Your task to perform on an android device: Go to accessibility settings Image 0: 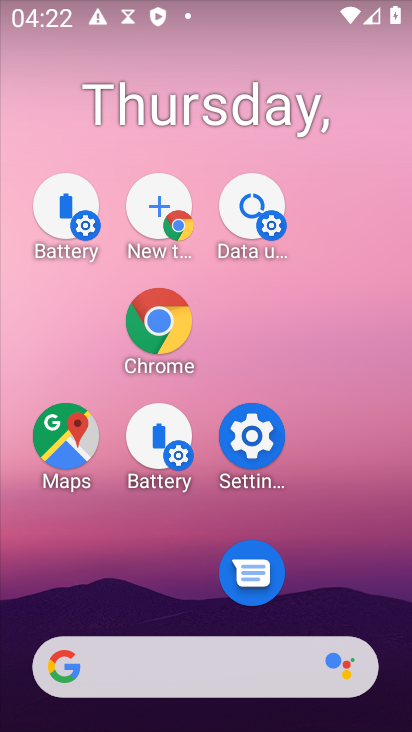
Step 0: drag from (236, 654) to (178, 212)
Your task to perform on an android device: Go to accessibility settings Image 1: 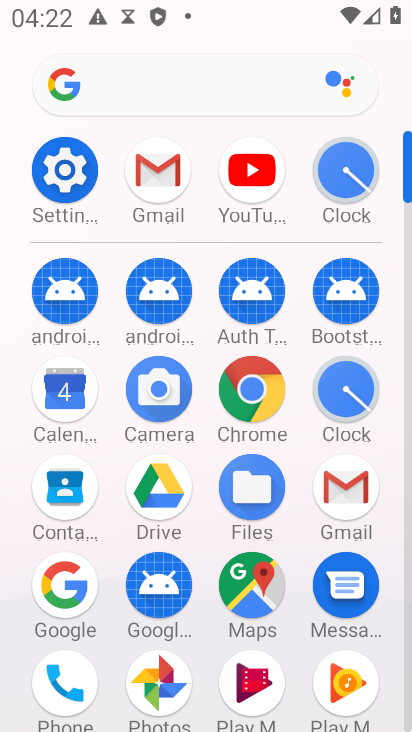
Step 1: click (59, 168)
Your task to perform on an android device: Go to accessibility settings Image 2: 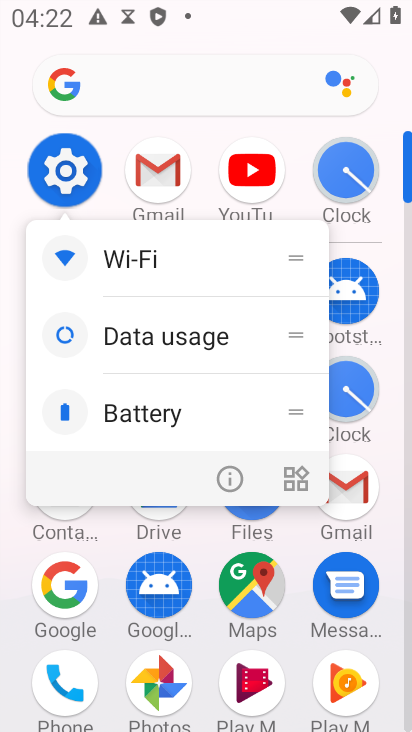
Step 2: click (60, 173)
Your task to perform on an android device: Go to accessibility settings Image 3: 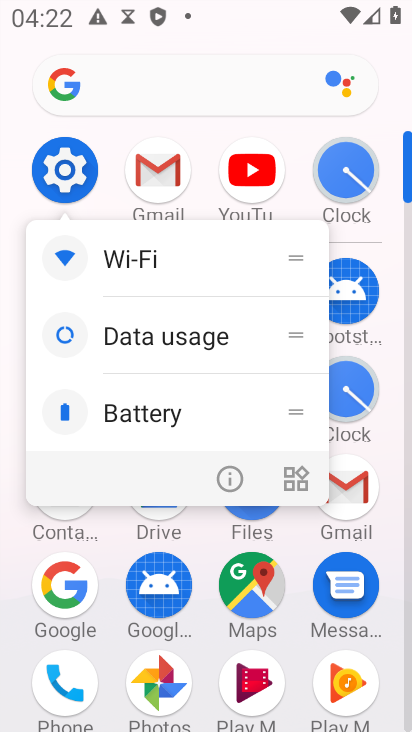
Step 3: click (166, 415)
Your task to perform on an android device: Go to accessibility settings Image 4: 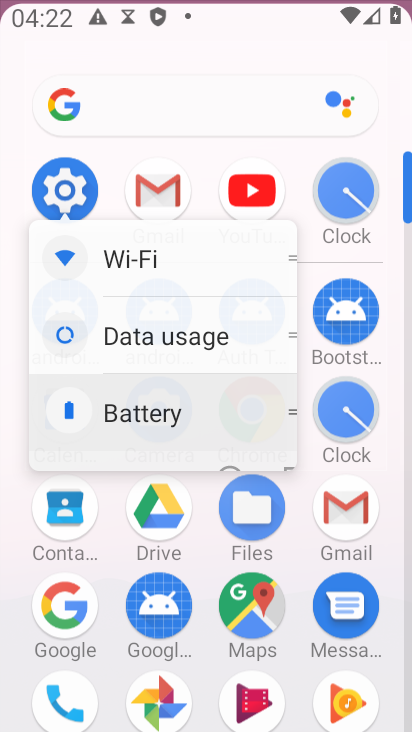
Step 4: click (166, 415)
Your task to perform on an android device: Go to accessibility settings Image 5: 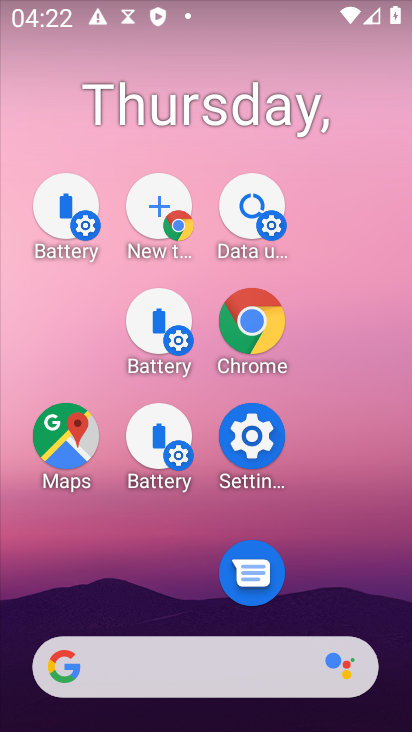
Step 5: drag from (304, 622) to (179, 37)
Your task to perform on an android device: Go to accessibility settings Image 6: 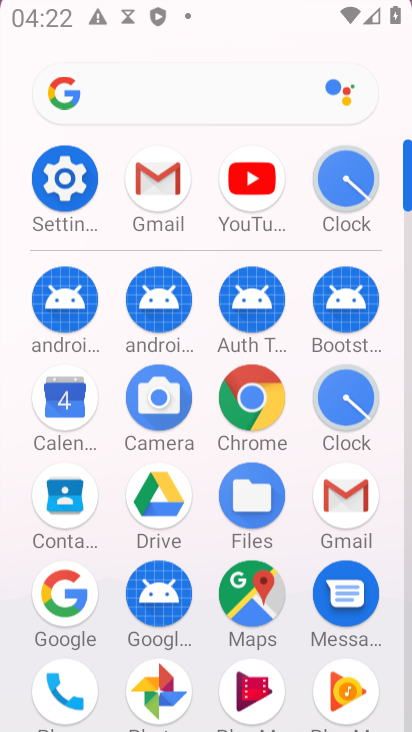
Step 6: drag from (303, 449) to (236, 15)
Your task to perform on an android device: Go to accessibility settings Image 7: 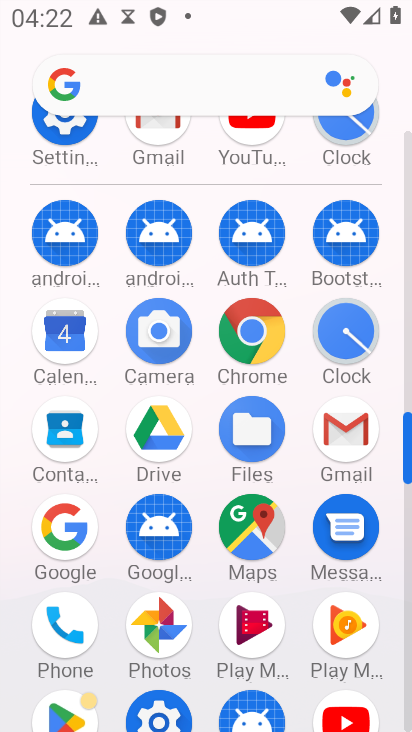
Step 7: click (156, 710)
Your task to perform on an android device: Go to accessibility settings Image 8: 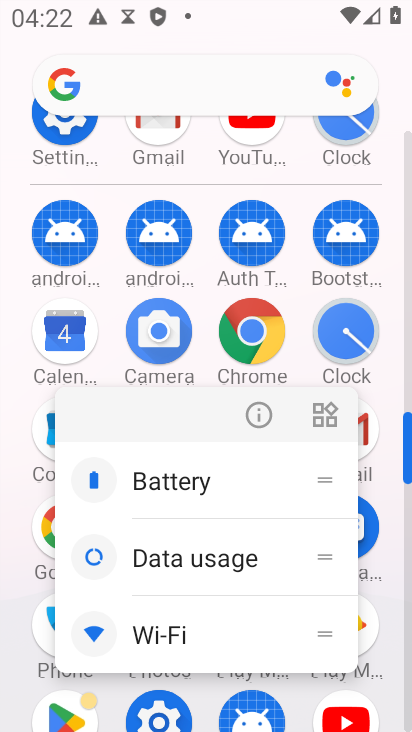
Step 8: click (155, 718)
Your task to perform on an android device: Go to accessibility settings Image 9: 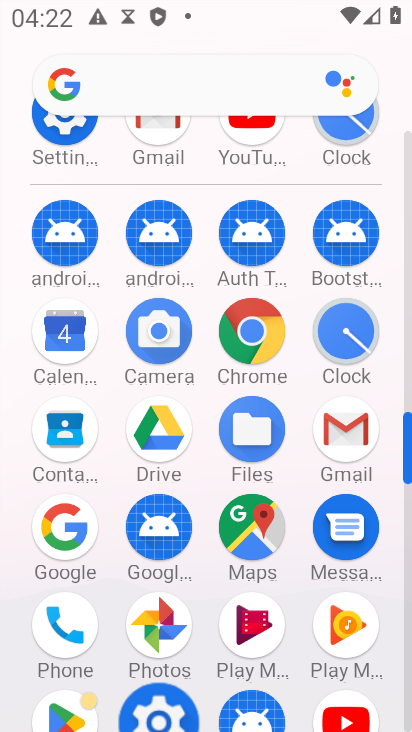
Step 9: click (159, 718)
Your task to perform on an android device: Go to accessibility settings Image 10: 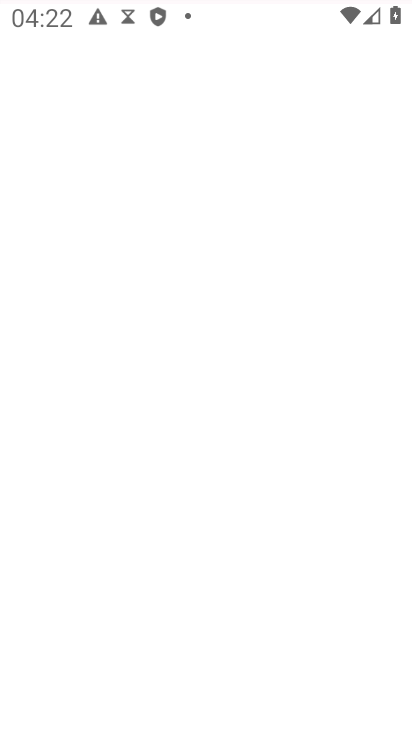
Step 10: click (164, 713)
Your task to perform on an android device: Go to accessibility settings Image 11: 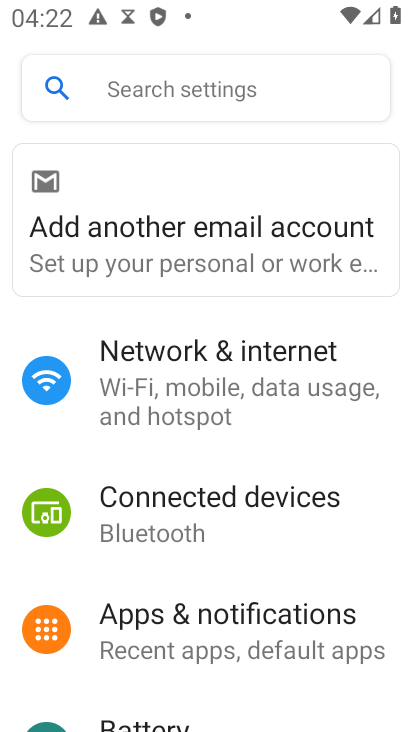
Step 11: drag from (241, 599) to (177, 233)
Your task to perform on an android device: Go to accessibility settings Image 12: 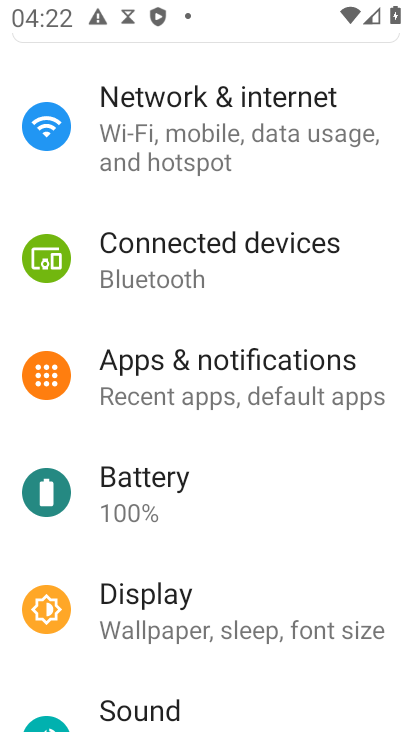
Step 12: drag from (225, 504) to (186, 268)
Your task to perform on an android device: Go to accessibility settings Image 13: 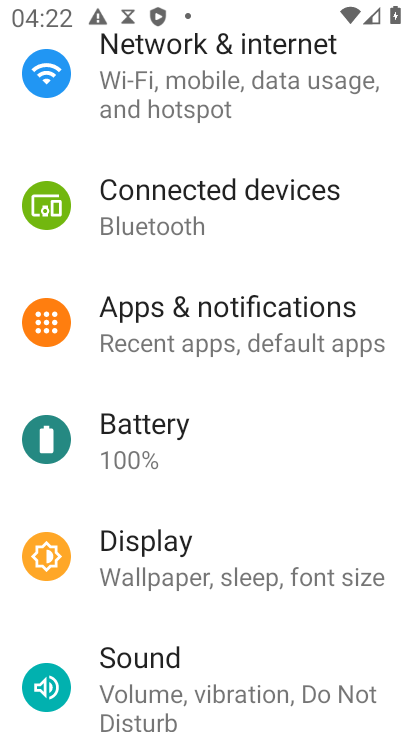
Step 13: drag from (245, 485) to (215, 224)
Your task to perform on an android device: Go to accessibility settings Image 14: 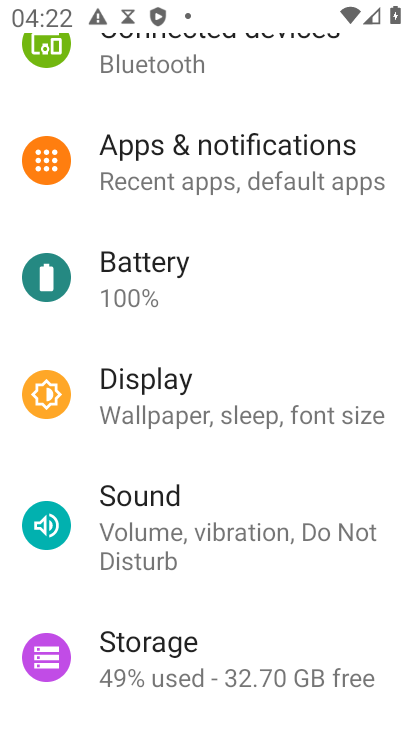
Step 14: drag from (241, 419) to (251, 251)
Your task to perform on an android device: Go to accessibility settings Image 15: 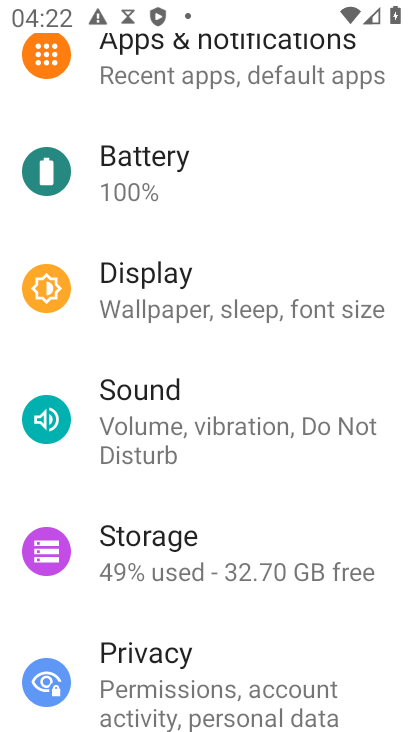
Step 15: drag from (233, 480) to (233, 236)
Your task to perform on an android device: Go to accessibility settings Image 16: 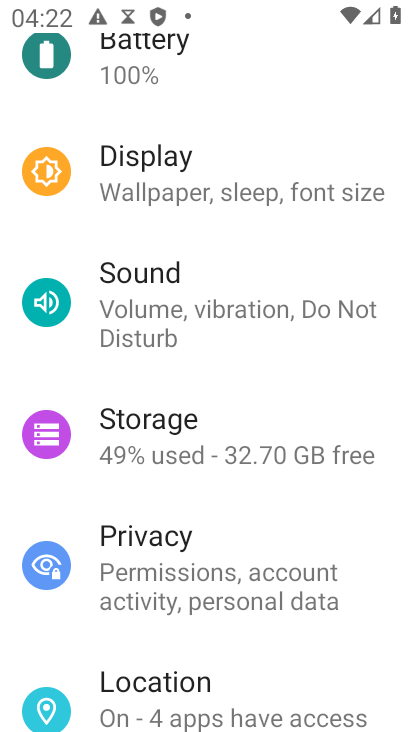
Step 16: drag from (250, 462) to (206, 155)
Your task to perform on an android device: Go to accessibility settings Image 17: 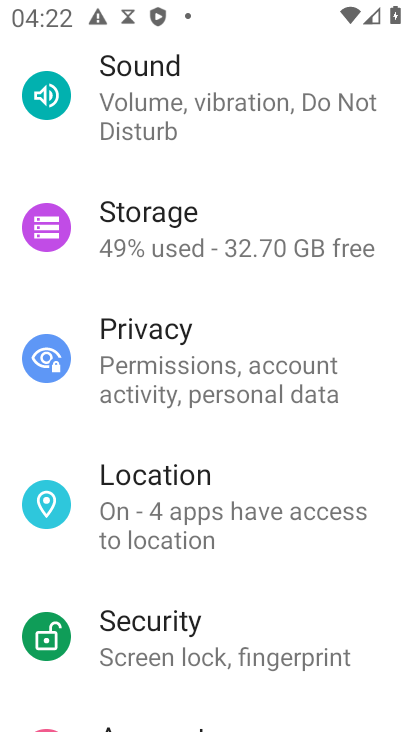
Step 17: drag from (248, 451) to (246, 217)
Your task to perform on an android device: Go to accessibility settings Image 18: 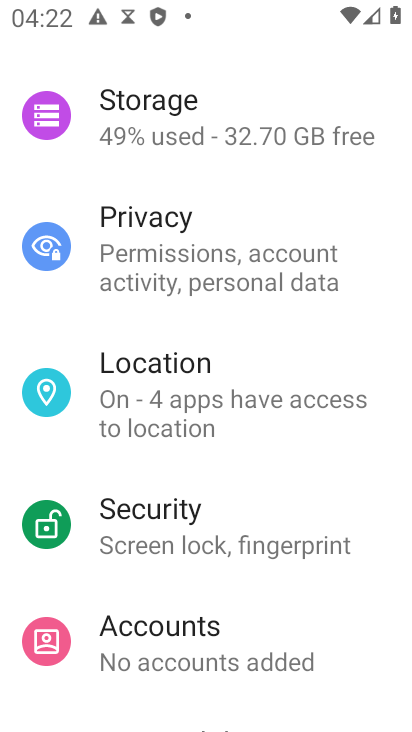
Step 18: drag from (238, 451) to (195, 189)
Your task to perform on an android device: Go to accessibility settings Image 19: 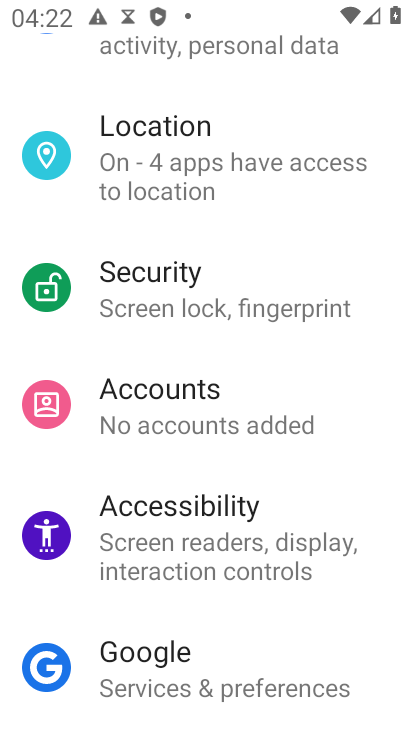
Step 19: drag from (234, 436) to (199, 189)
Your task to perform on an android device: Go to accessibility settings Image 20: 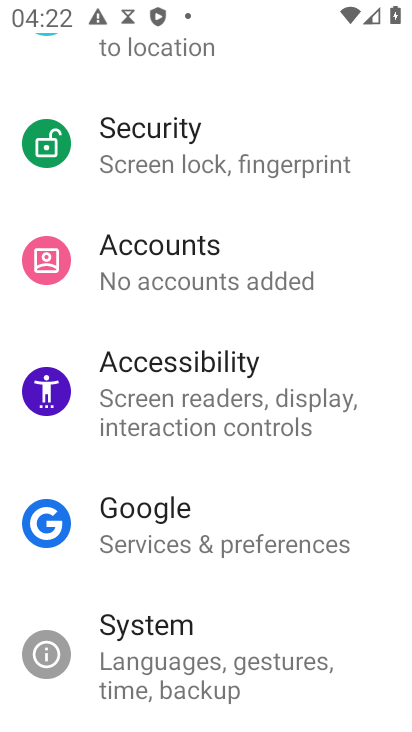
Step 20: drag from (185, 455) to (106, 52)
Your task to perform on an android device: Go to accessibility settings Image 21: 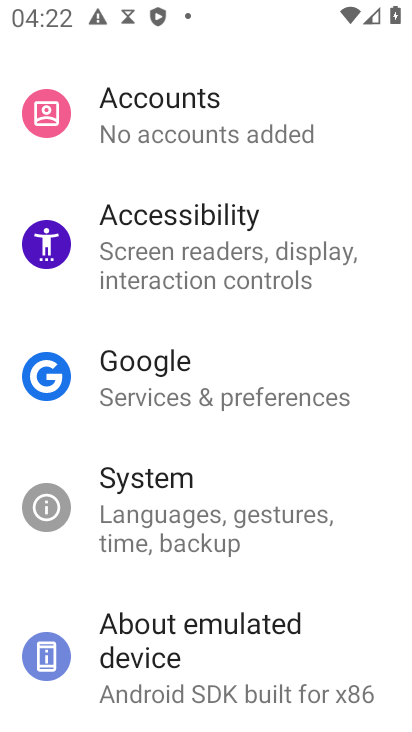
Step 21: click (181, 249)
Your task to perform on an android device: Go to accessibility settings Image 22: 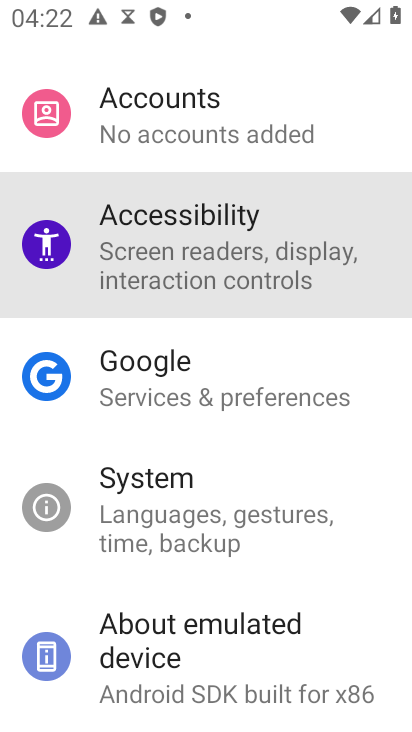
Step 22: click (181, 249)
Your task to perform on an android device: Go to accessibility settings Image 23: 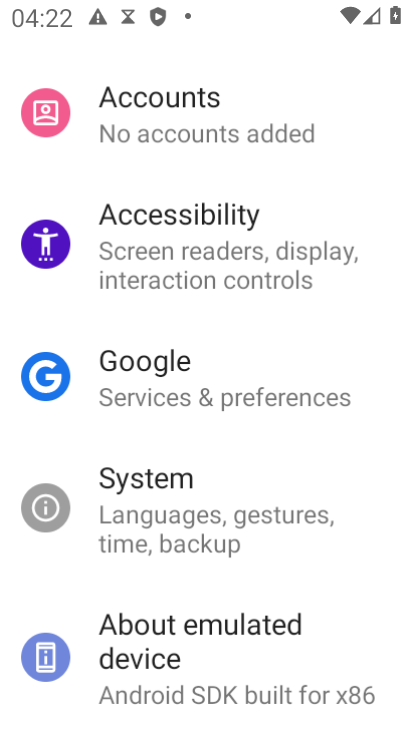
Step 23: click (181, 249)
Your task to perform on an android device: Go to accessibility settings Image 24: 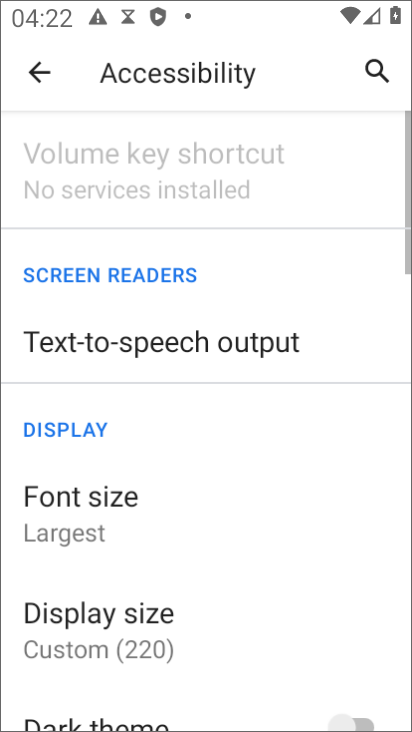
Step 24: click (182, 250)
Your task to perform on an android device: Go to accessibility settings Image 25: 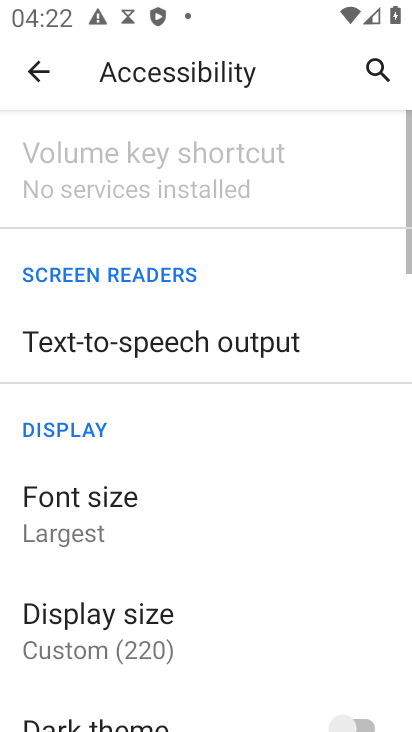
Step 25: click (184, 249)
Your task to perform on an android device: Go to accessibility settings Image 26: 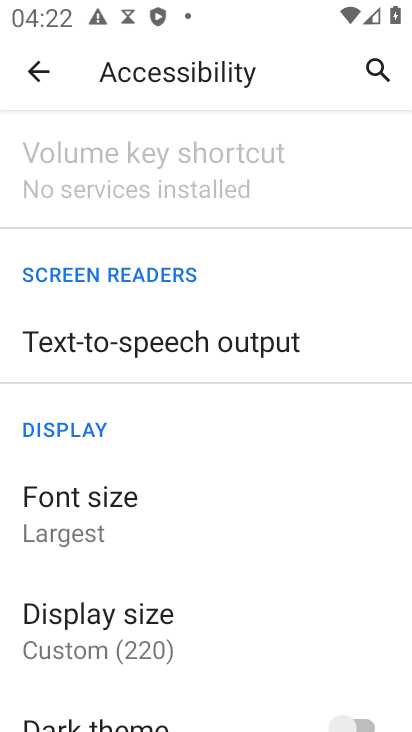
Step 26: task complete